Your task to perform on an android device: Open the map Image 0: 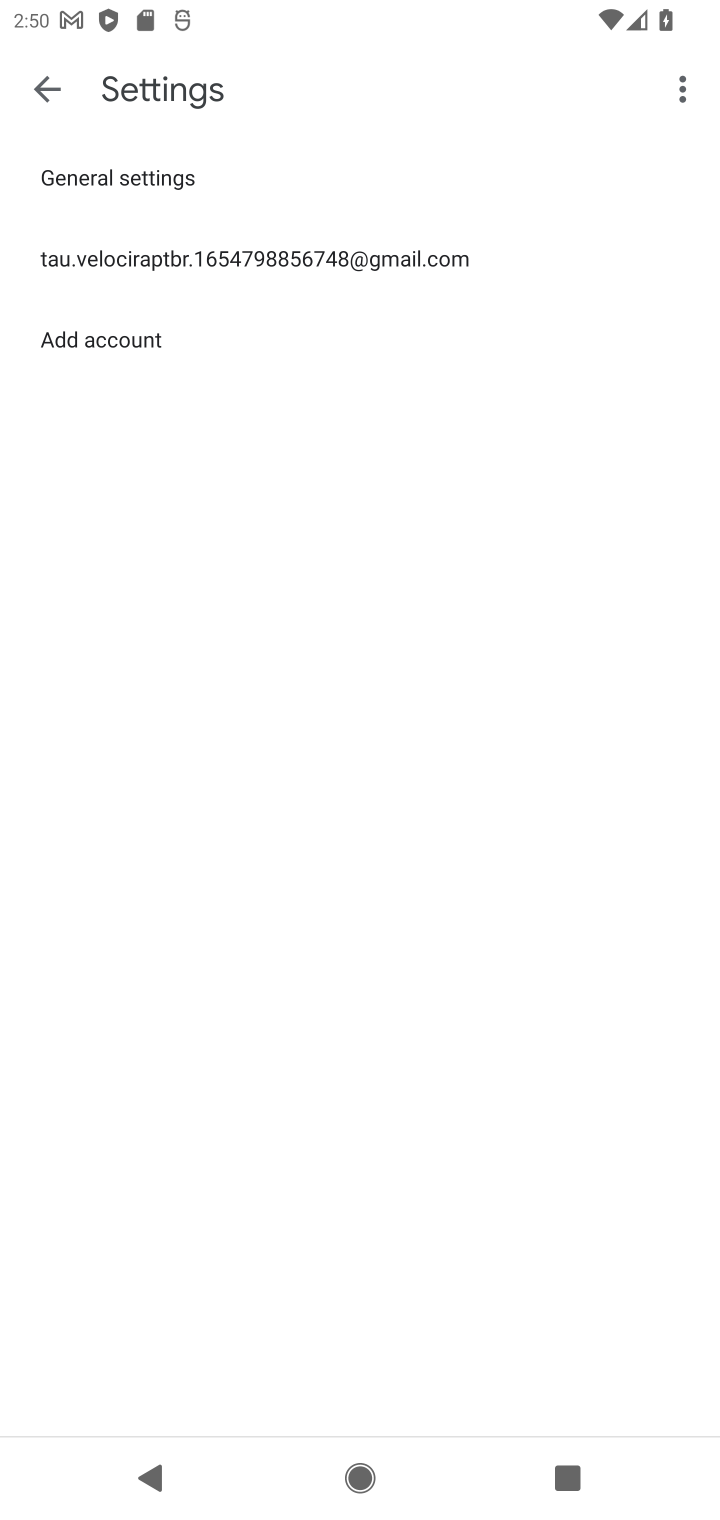
Step 0: press home button
Your task to perform on an android device: Open the map Image 1: 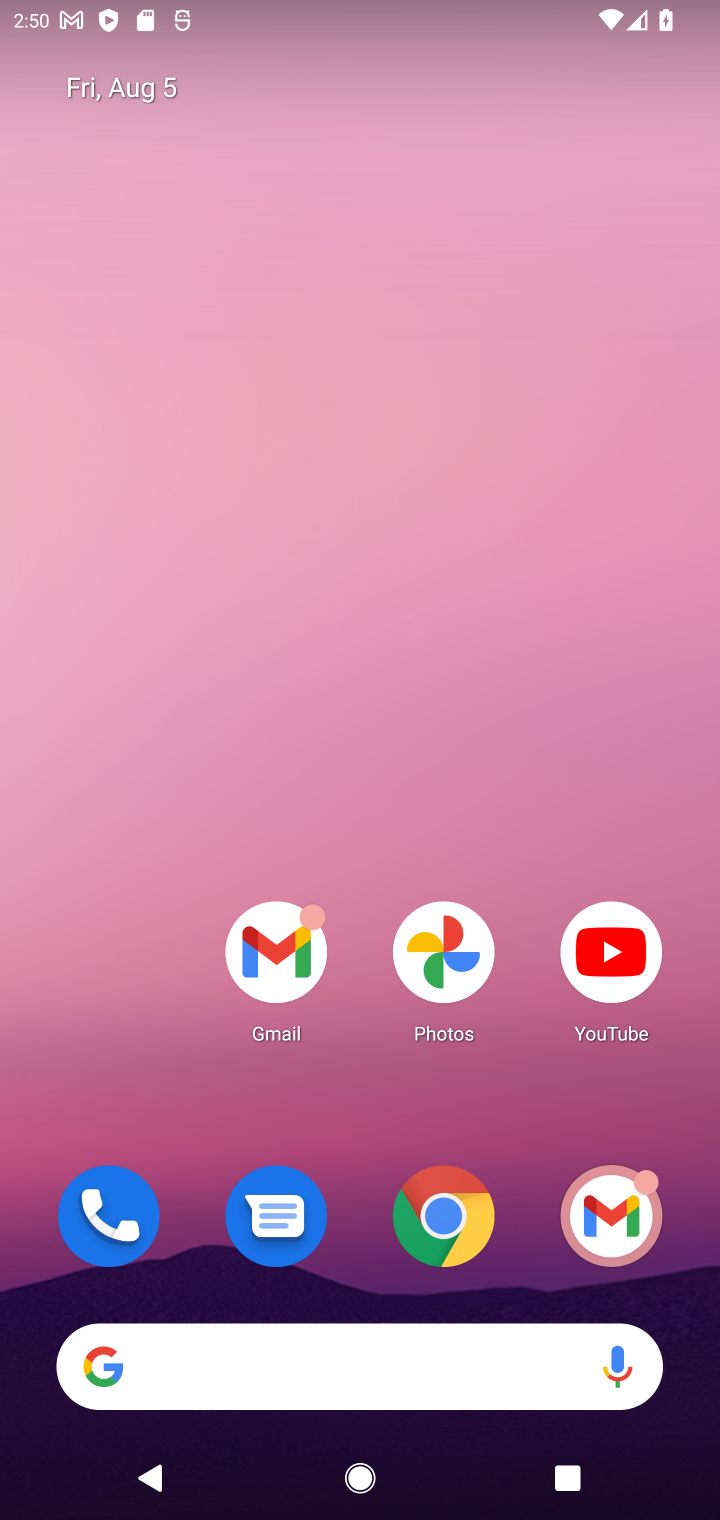
Step 1: click (259, 961)
Your task to perform on an android device: Open the map Image 2: 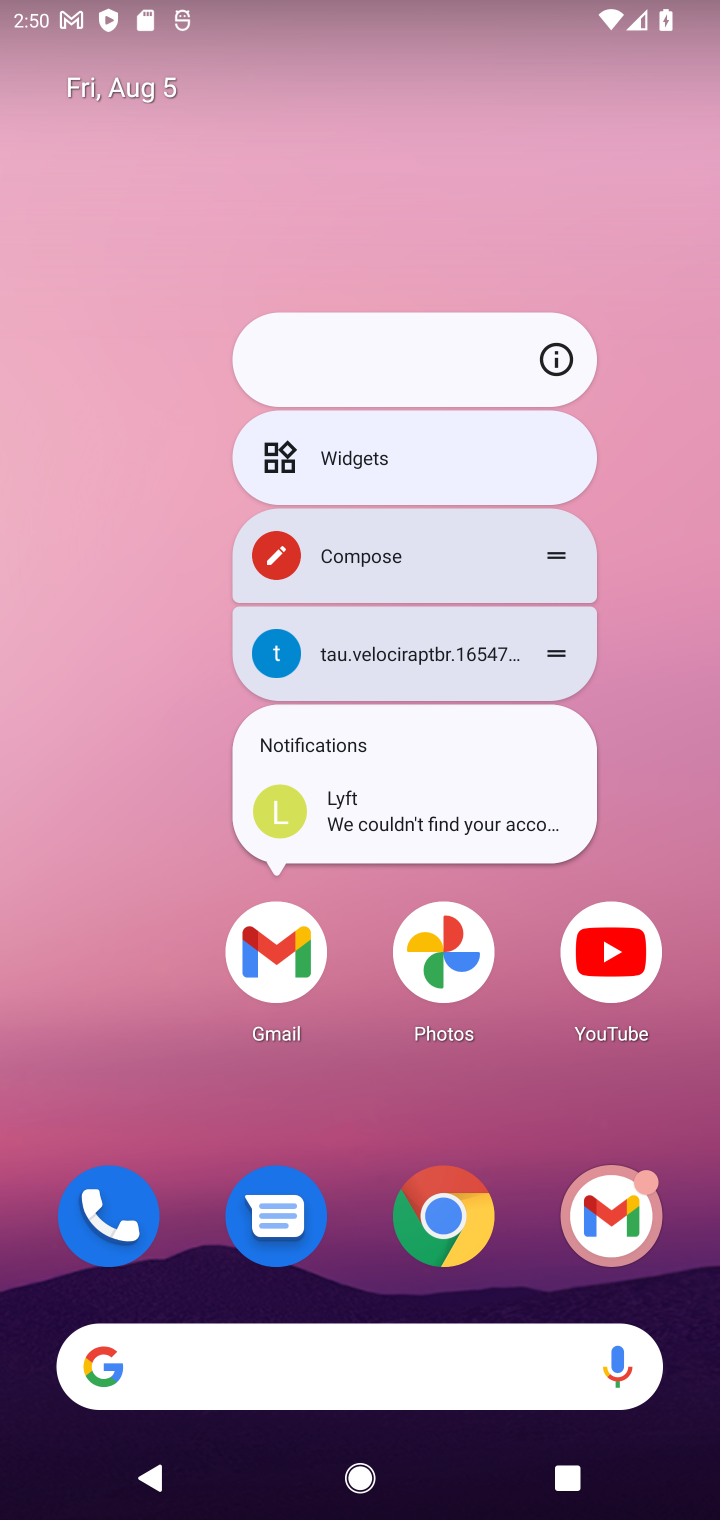
Step 2: click (264, 954)
Your task to perform on an android device: Open the map Image 3: 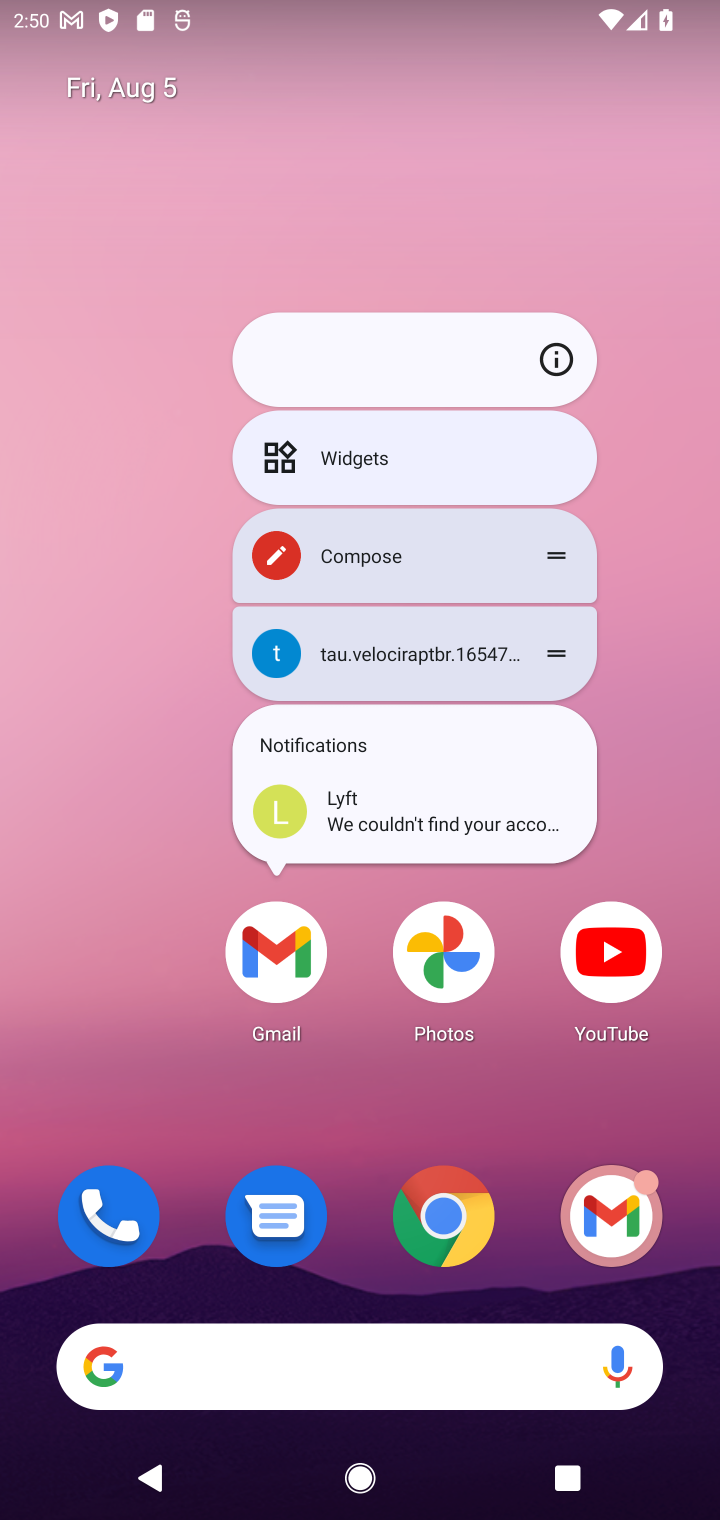
Step 3: click (264, 954)
Your task to perform on an android device: Open the map Image 4: 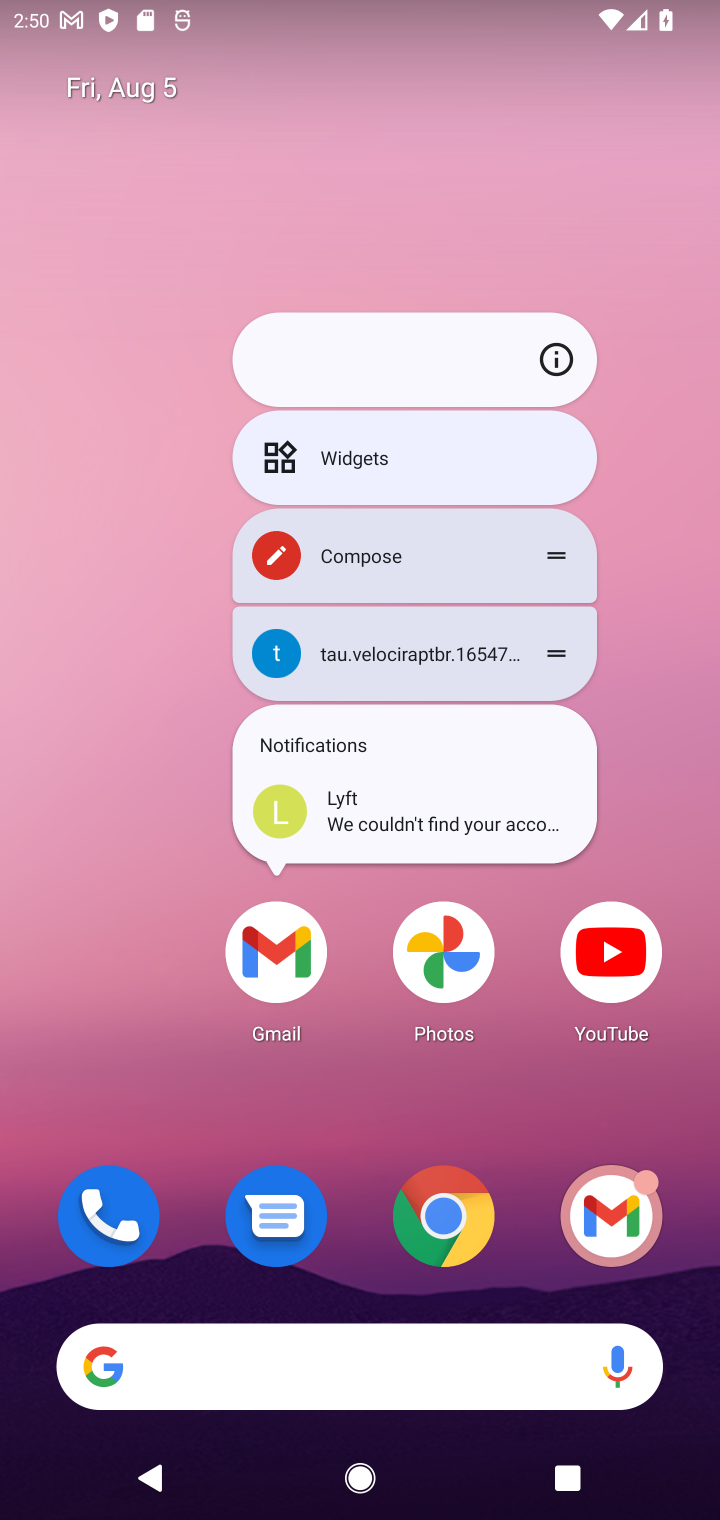
Step 4: click (268, 1003)
Your task to perform on an android device: Open the map Image 5: 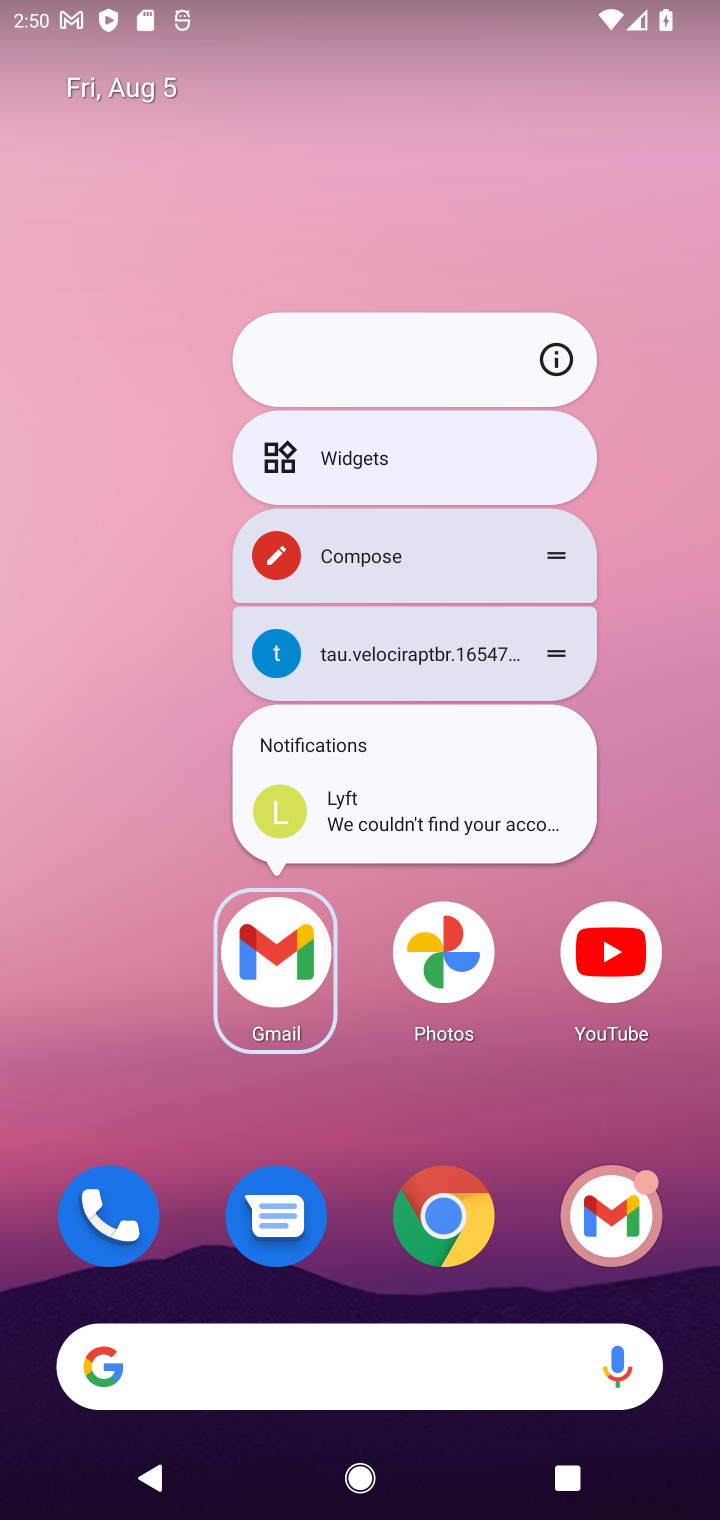
Step 5: click (291, 942)
Your task to perform on an android device: Open the map Image 6: 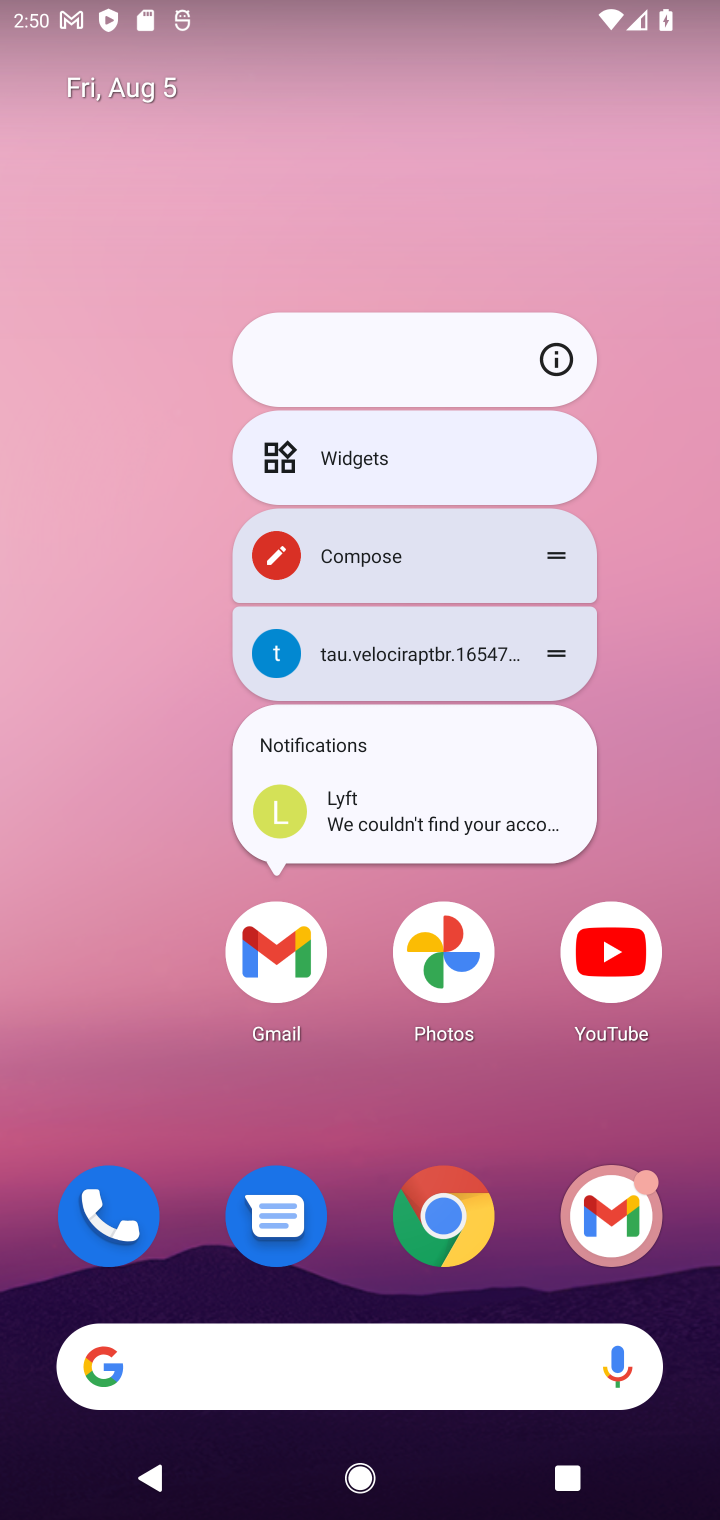
Step 6: click (291, 942)
Your task to perform on an android device: Open the map Image 7: 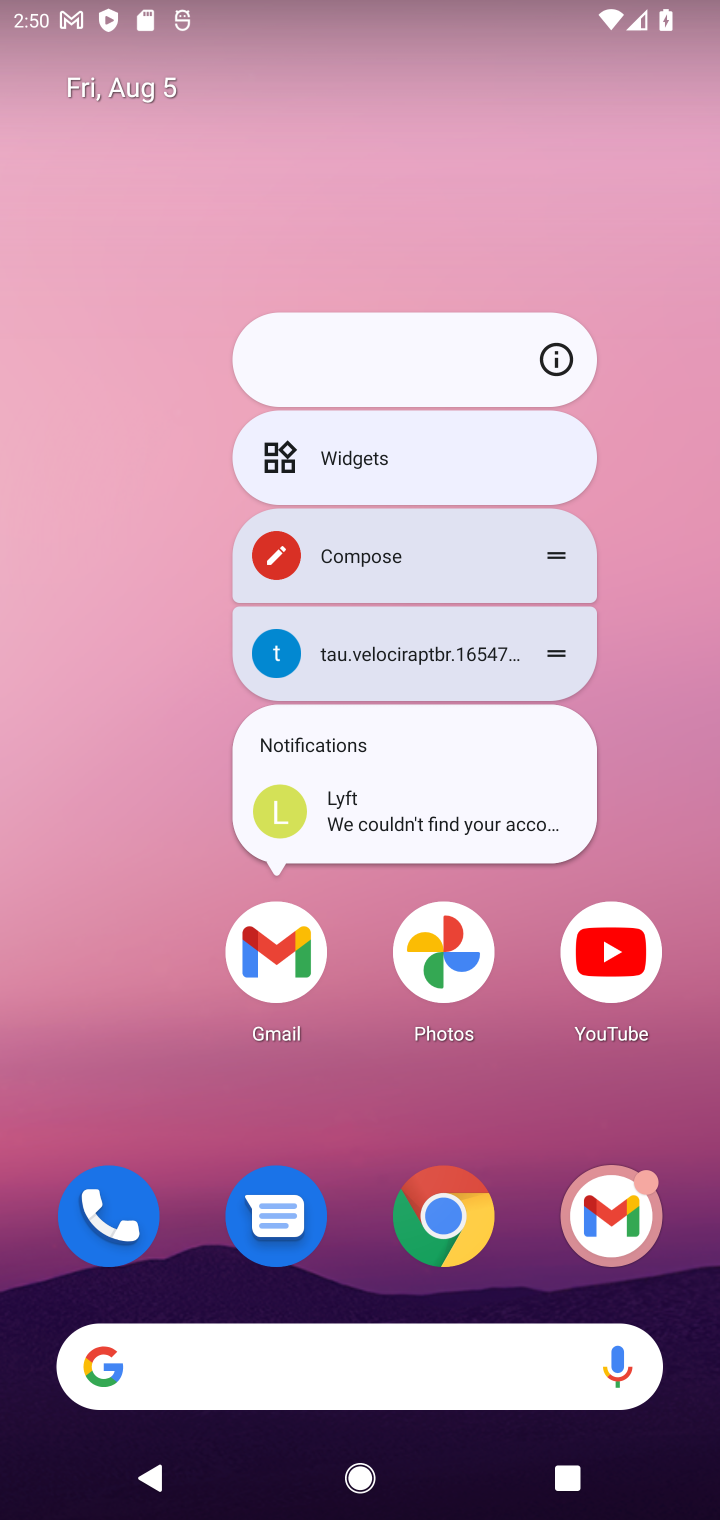
Step 7: click (261, 996)
Your task to perform on an android device: Open the map Image 8: 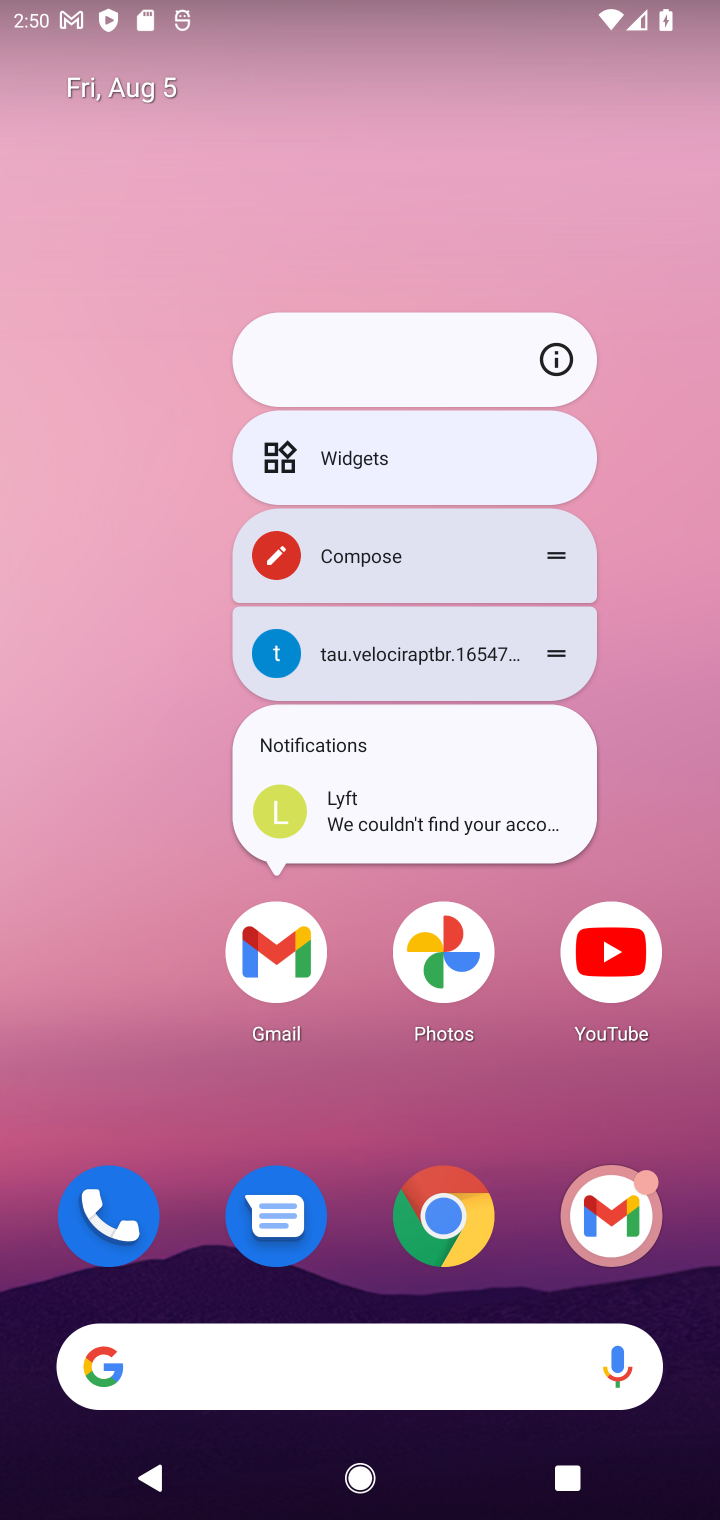
Step 8: click (278, 972)
Your task to perform on an android device: Open the map Image 9: 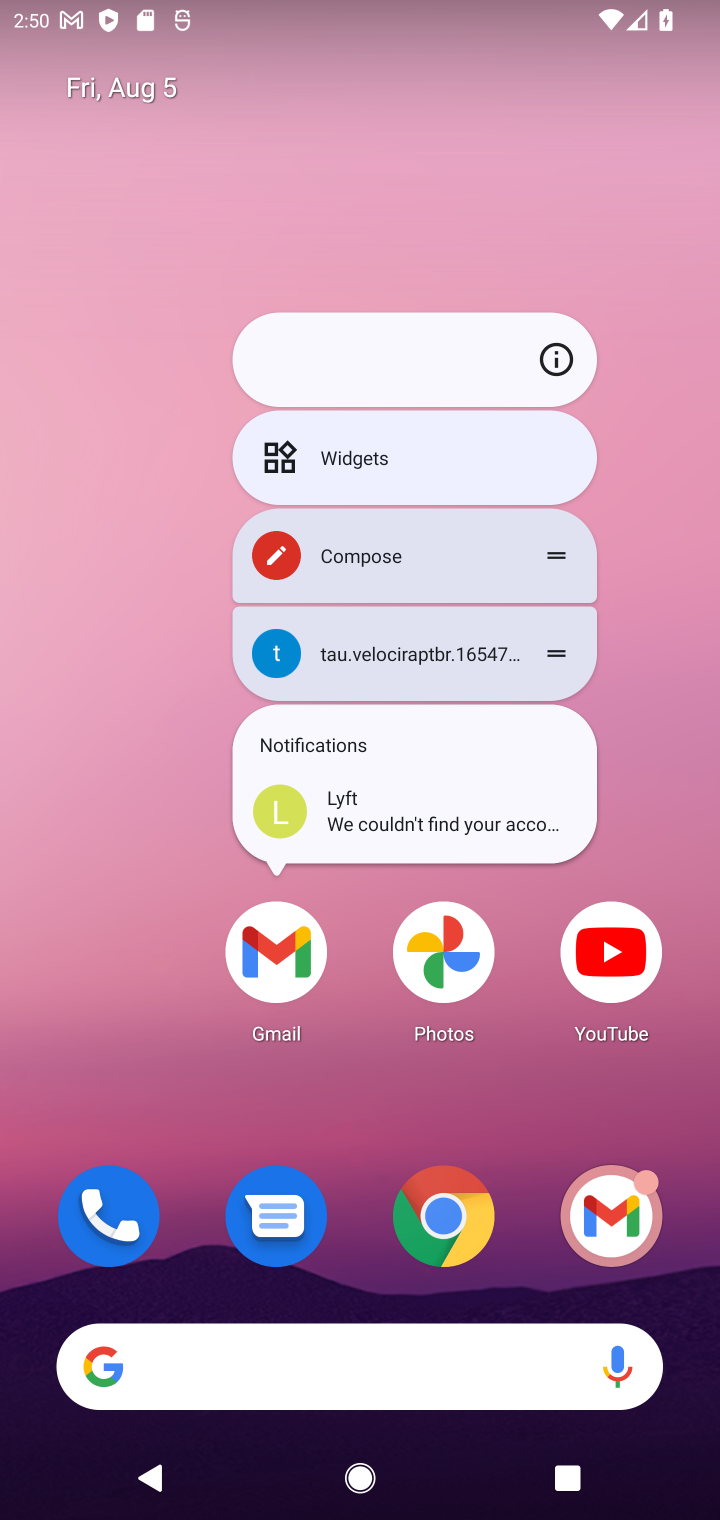
Step 9: click (308, 956)
Your task to perform on an android device: Open the map Image 10: 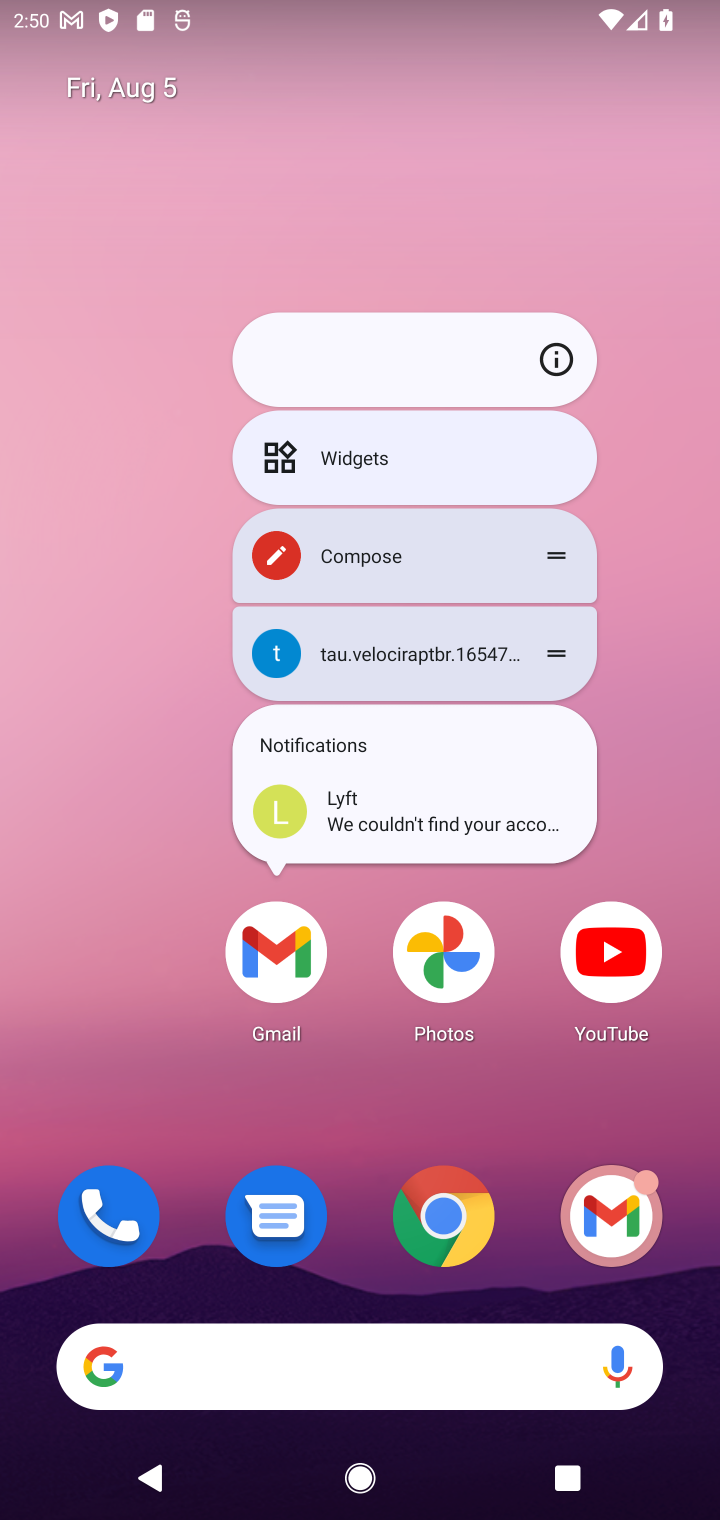
Step 10: click (308, 956)
Your task to perform on an android device: Open the map Image 11: 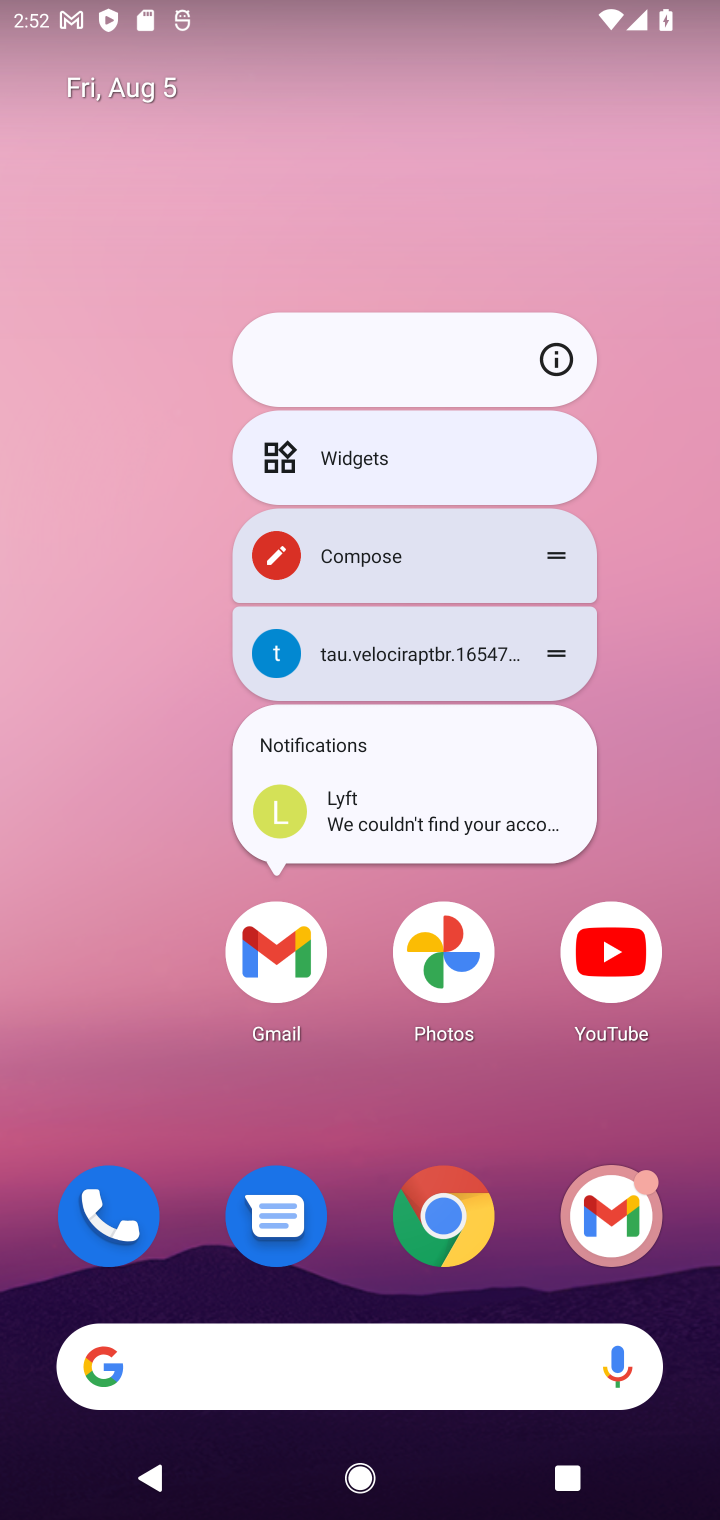
Step 11: drag from (344, 1200) to (270, 14)
Your task to perform on an android device: Open the map Image 12: 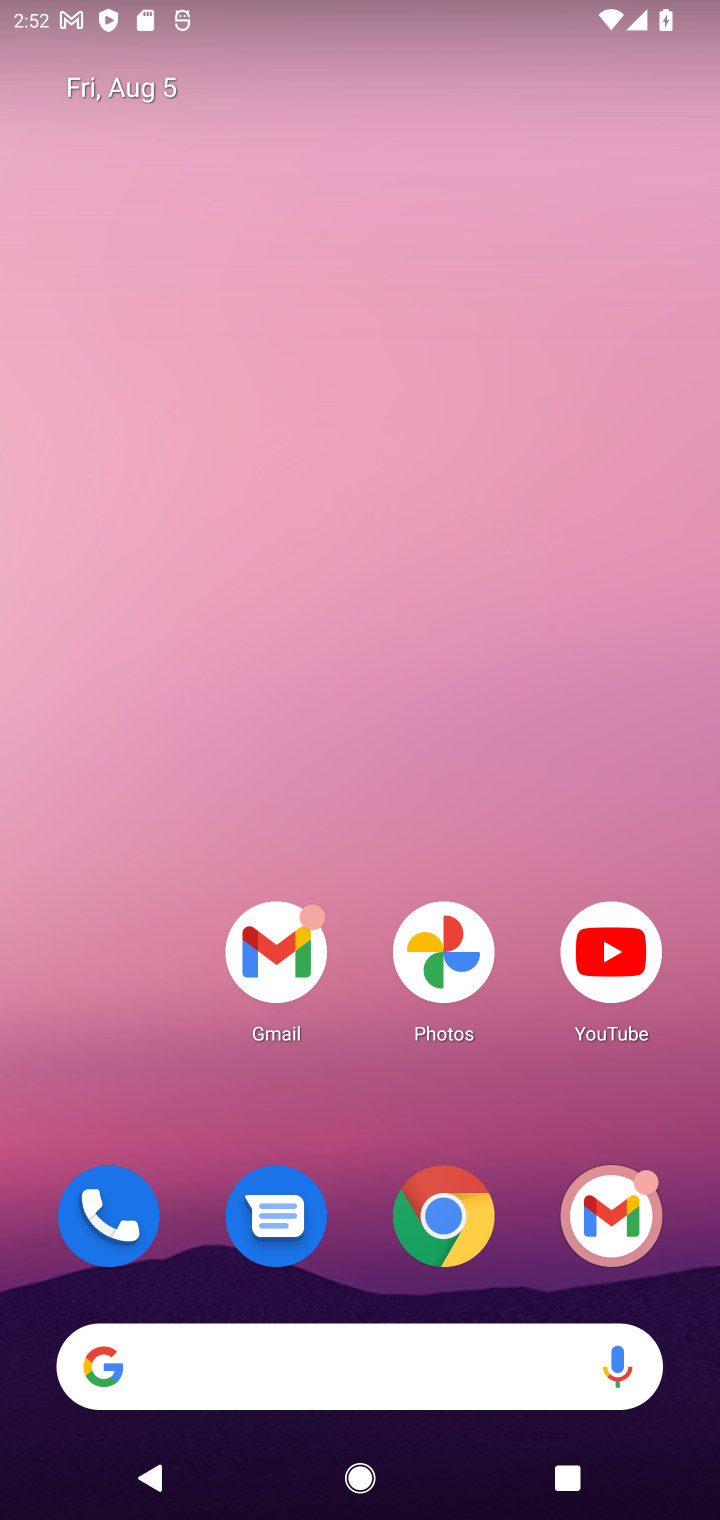
Step 12: drag from (247, 1359) to (507, 21)
Your task to perform on an android device: Open the map Image 13: 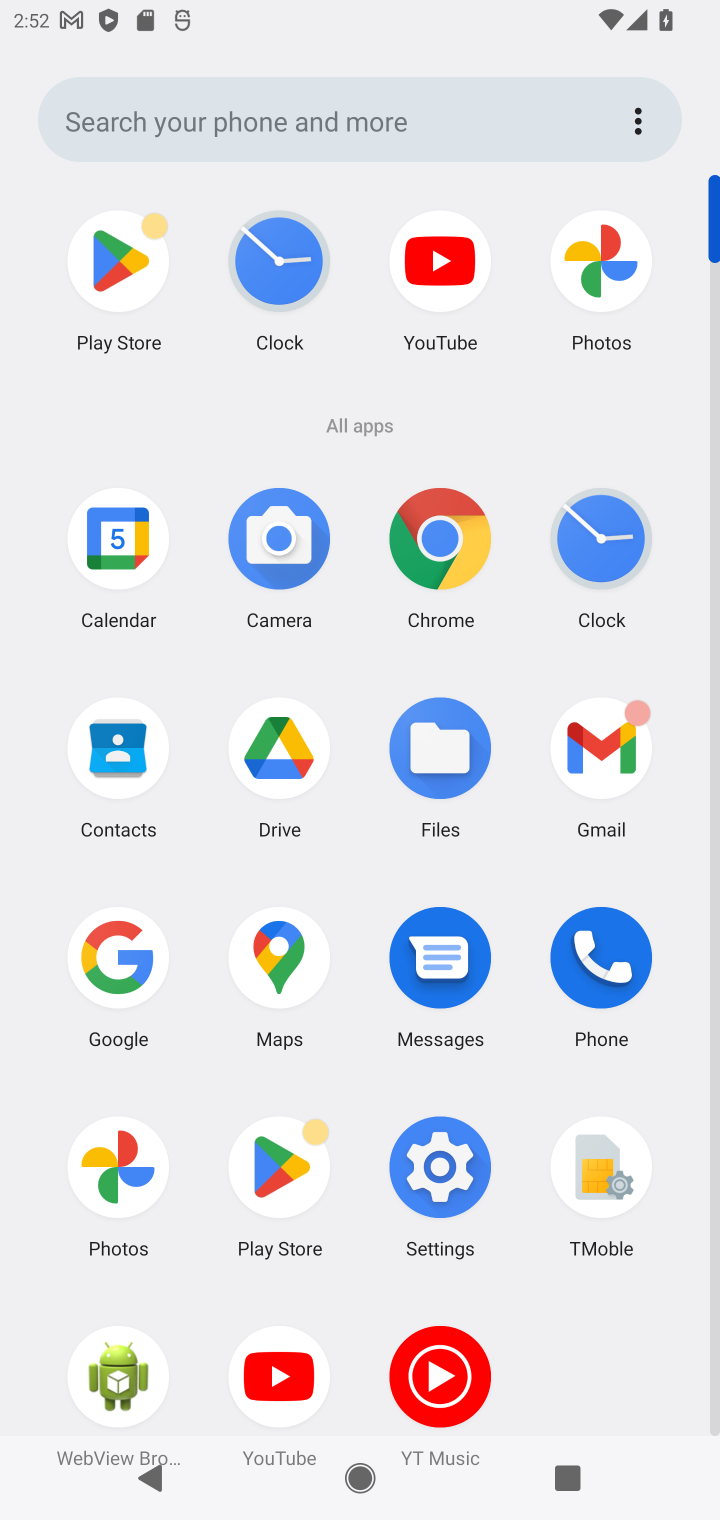
Step 13: click (301, 948)
Your task to perform on an android device: Open the map Image 14: 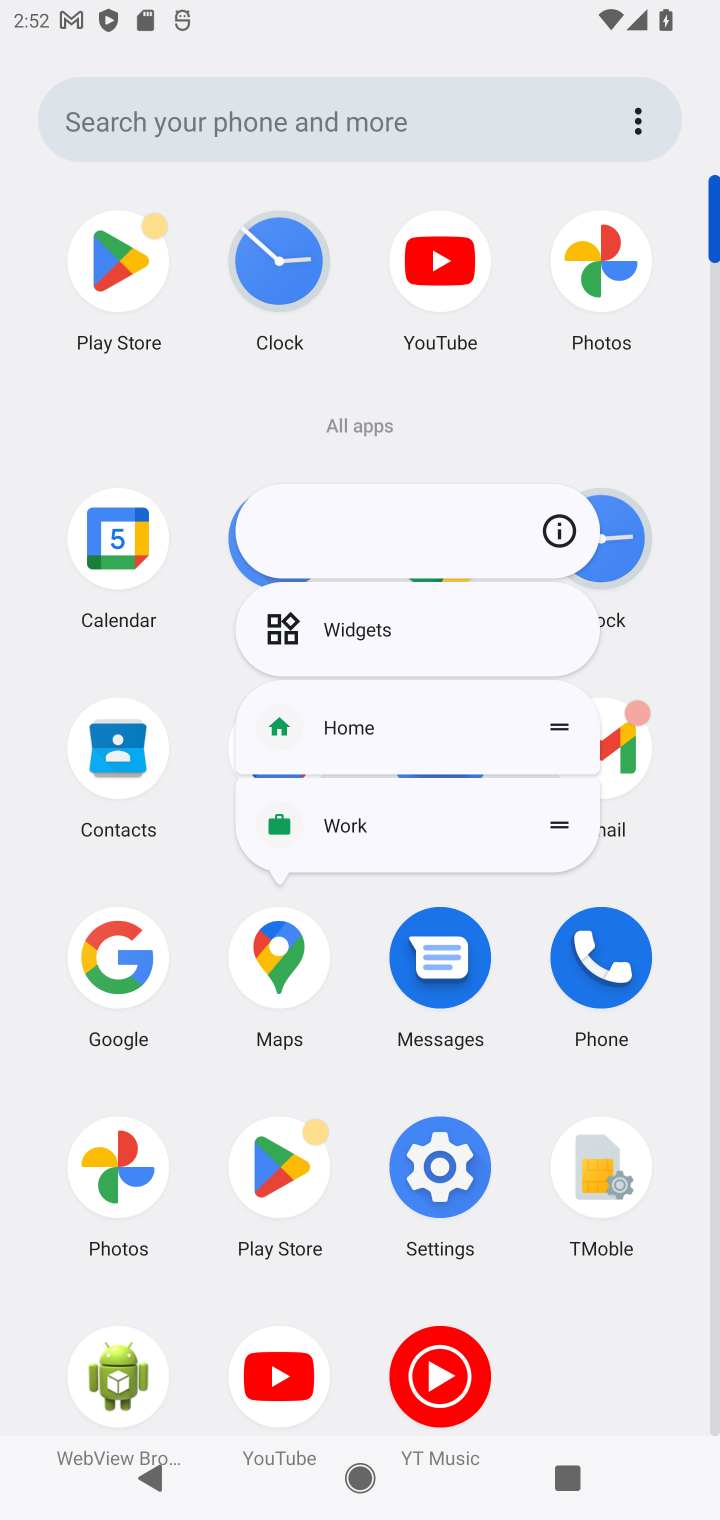
Step 14: click (301, 948)
Your task to perform on an android device: Open the map Image 15: 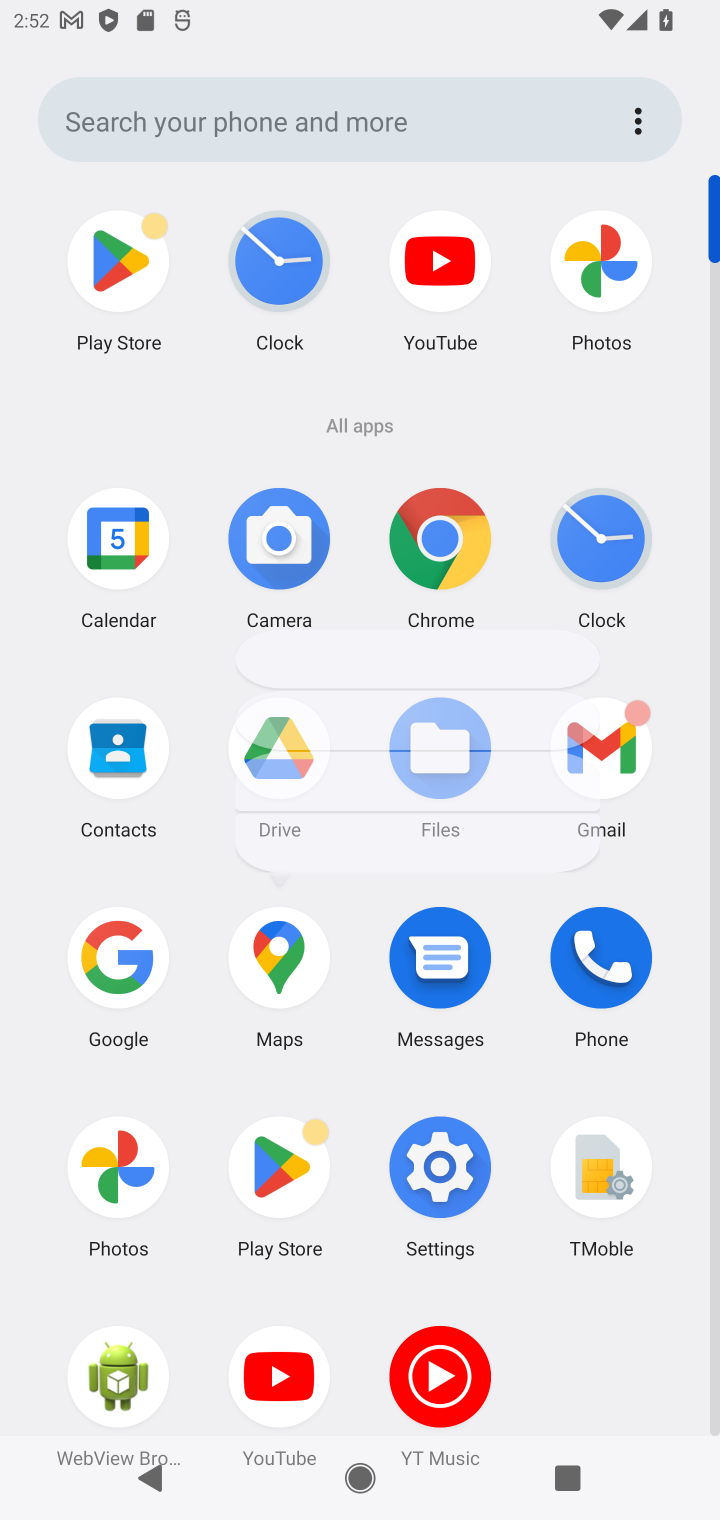
Step 15: click (244, 982)
Your task to perform on an android device: Open the map Image 16: 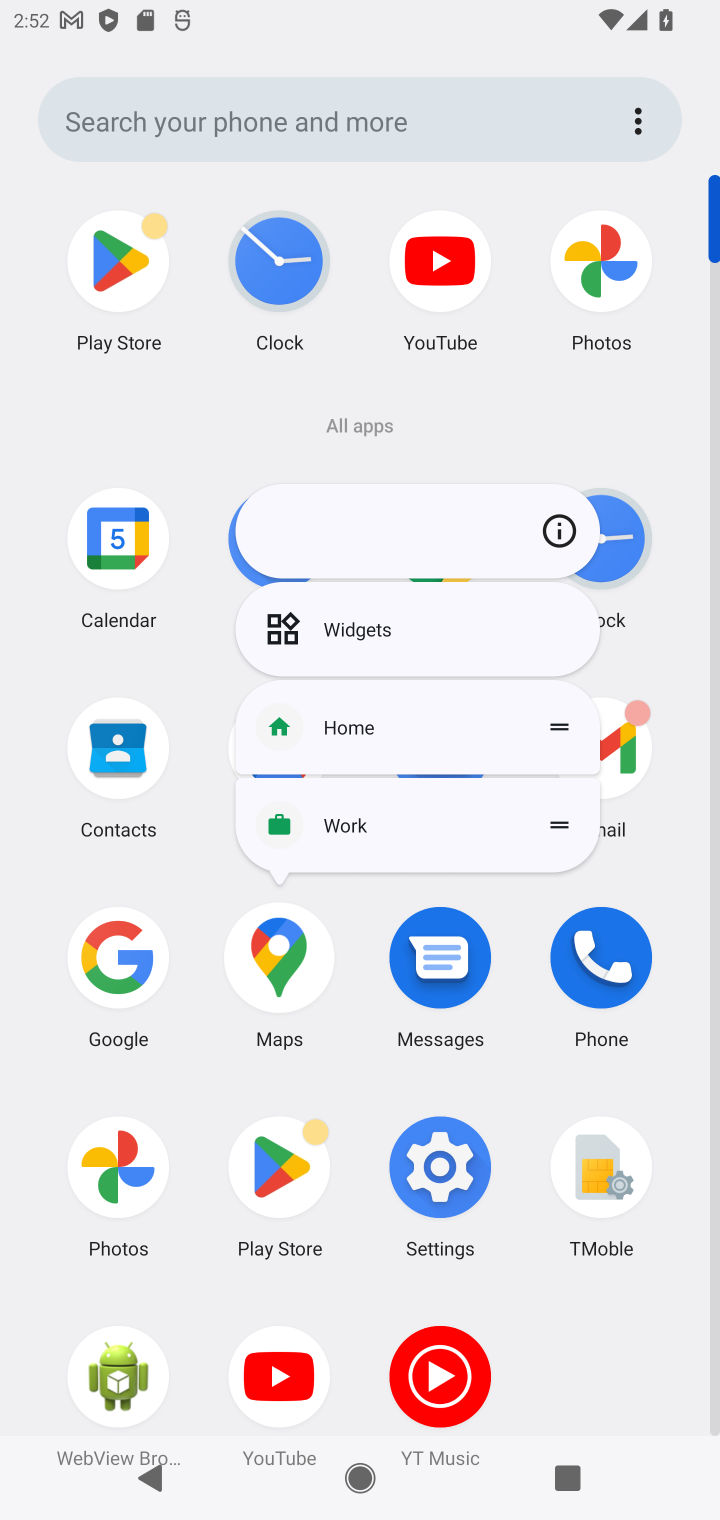
Step 16: click (301, 994)
Your task to perform on an android device: Open the map Image 17: 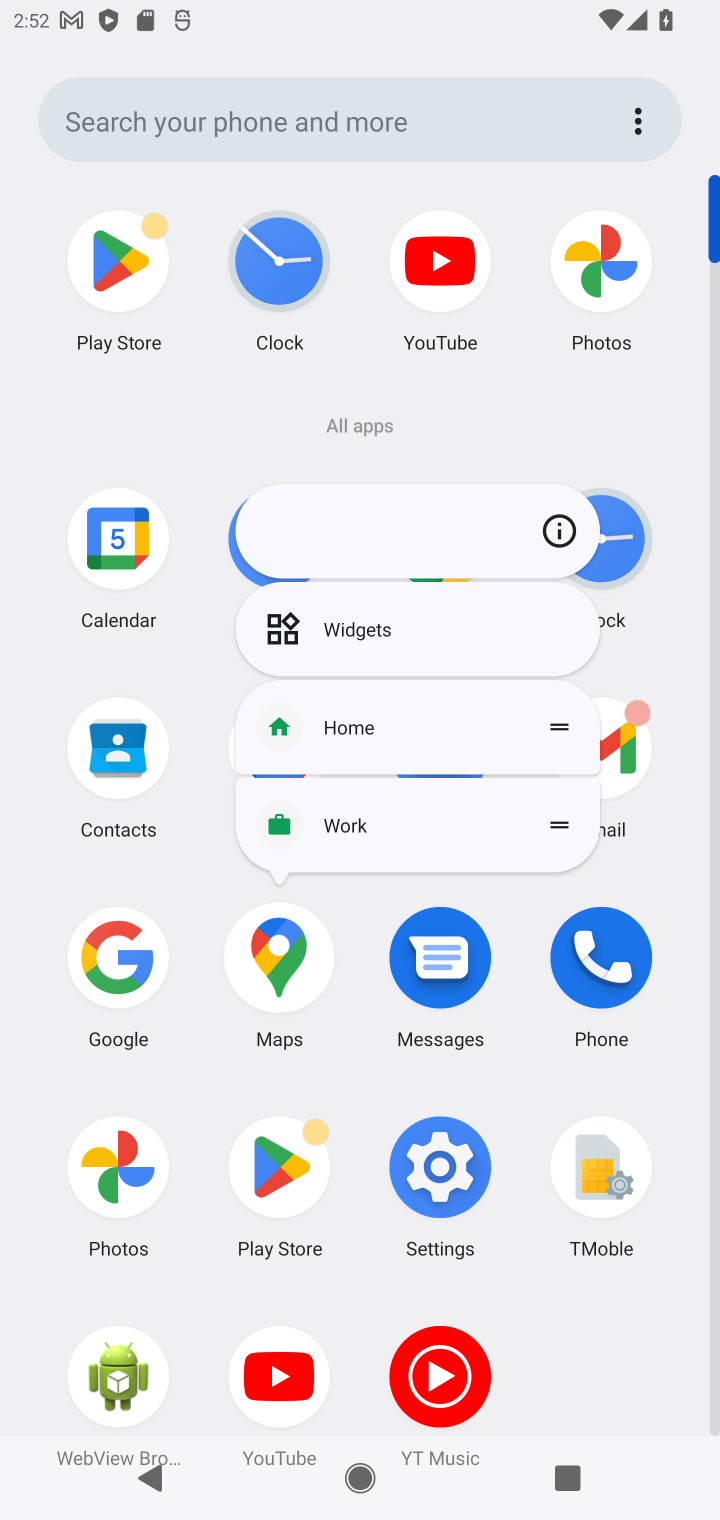
Step 17: click (244, 971)
Your task to perform on an android device: Open the map Image 18: 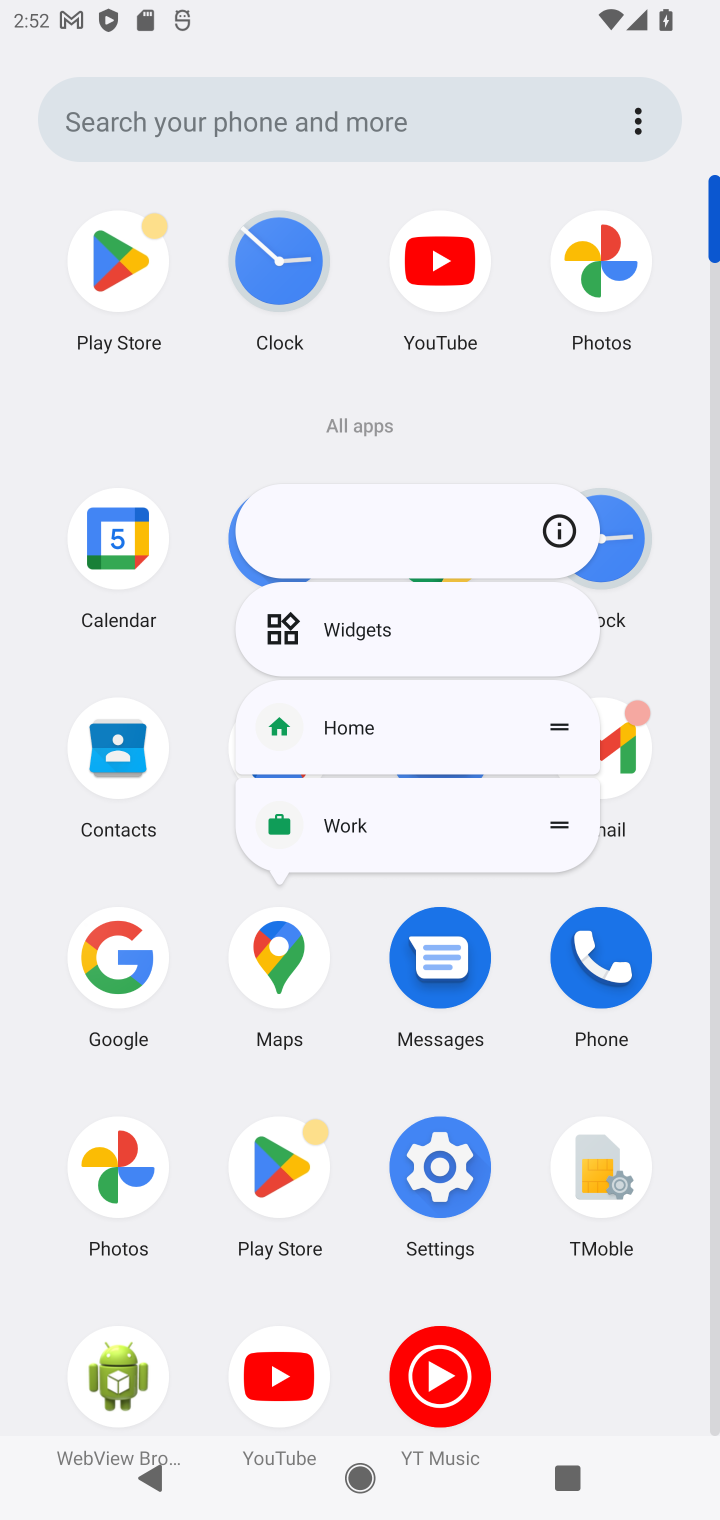
Step 18: click (244, 971)
Your task to perform on an android device: Open the map Image 19: 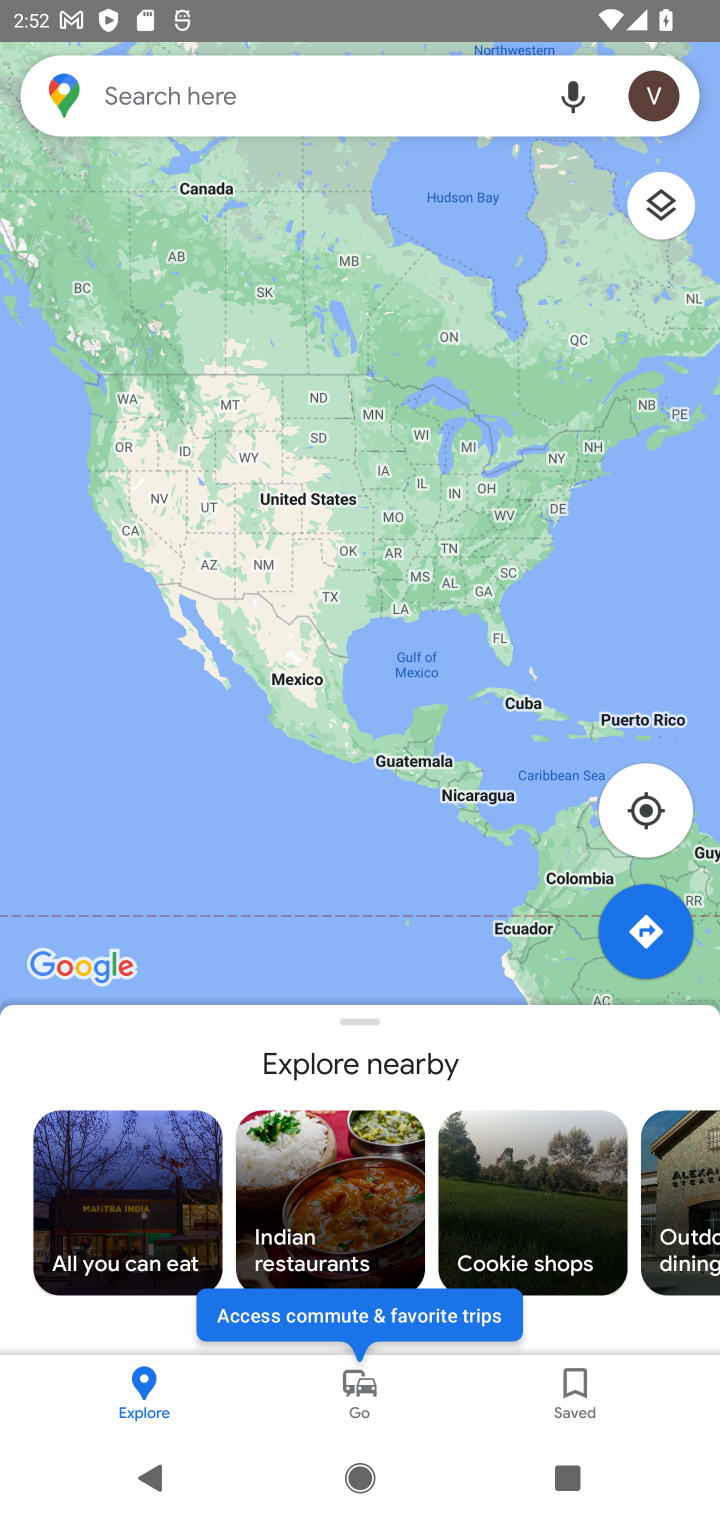
Step 19: task complete